Your task to perform on an android device: search for starred emails in the gmail app Image 0: 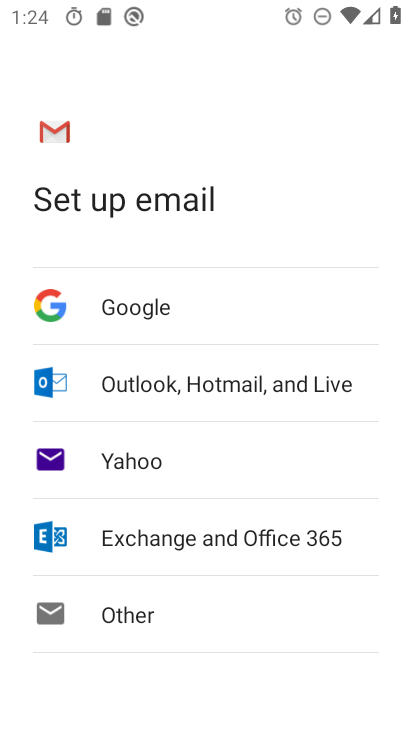
Step 0: press home button
Your task to perform on an android device: search for starred emails in the gmail app Image 1: 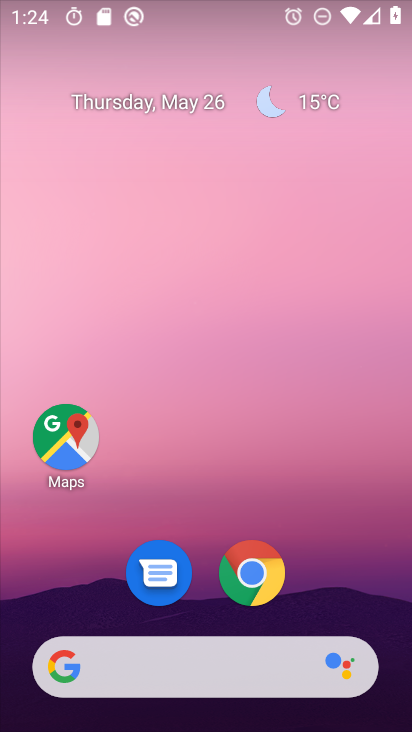
Step 1: drag from (340, 622) to (297, 4)
Your task to perform on an android device: search for starred emails in the gmail app Image 2: 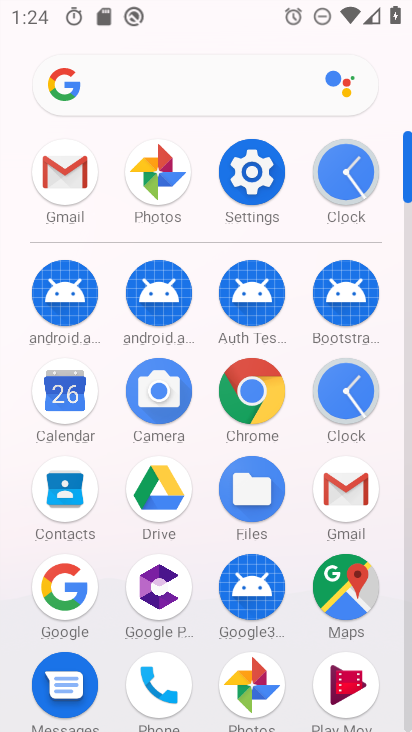
Step 2: click (56, 182)
Your task to perform on an android device: search for starred emails in the gmail app Image 3: 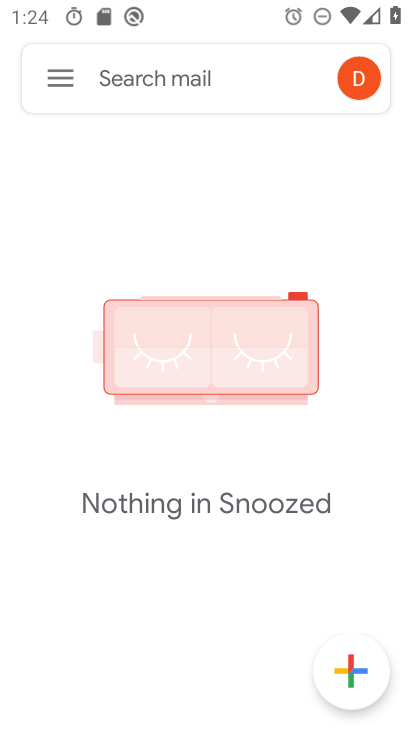
Step 3: click (55, 81)
Your task to perform on an android device: search for starred emails in the gmail app Image 4: 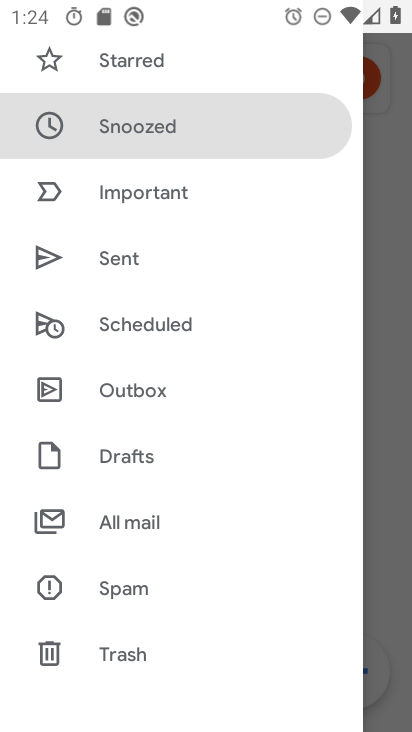
Step 4: click (126, 61)
Your task to perform on an android device: search for starred emails in the gmail app Image 5: 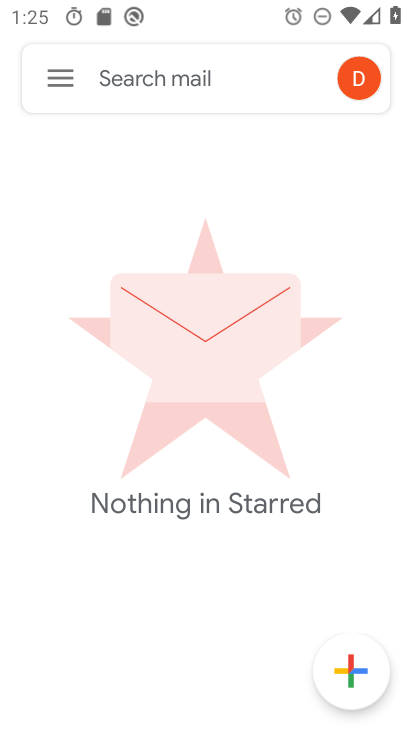
Step 5: task complete